Your task to perform on an android device: Go to wifi settings Image 0: 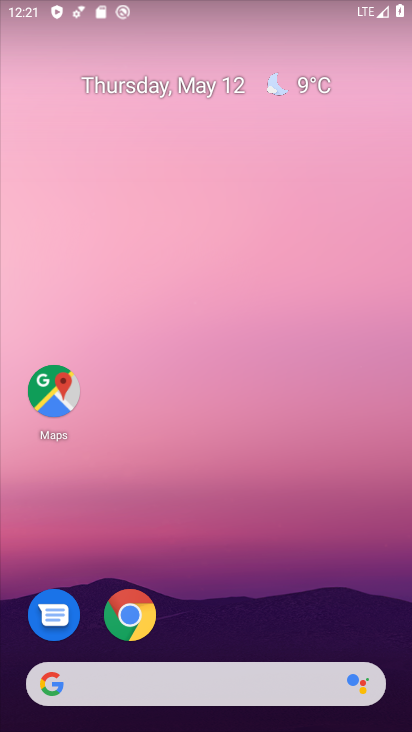
Step 0: drag from (257, 593) to (234, 74)
Your task to perform on an android device: Go to wifi settings Image 1: 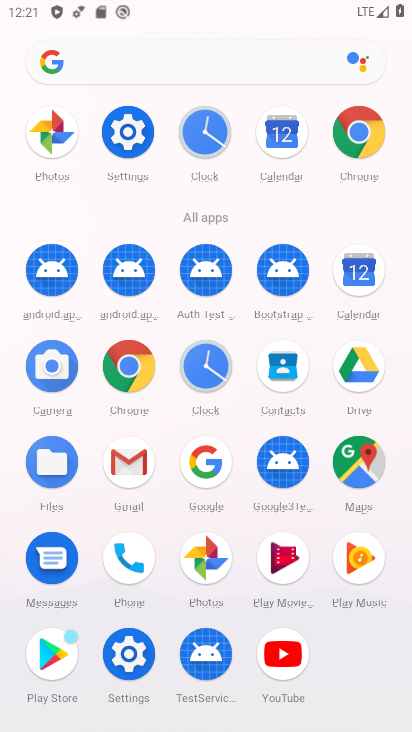
Step 1: click (127, 128)
Your task to perform on an android device: Go to wifi settings Image 2: 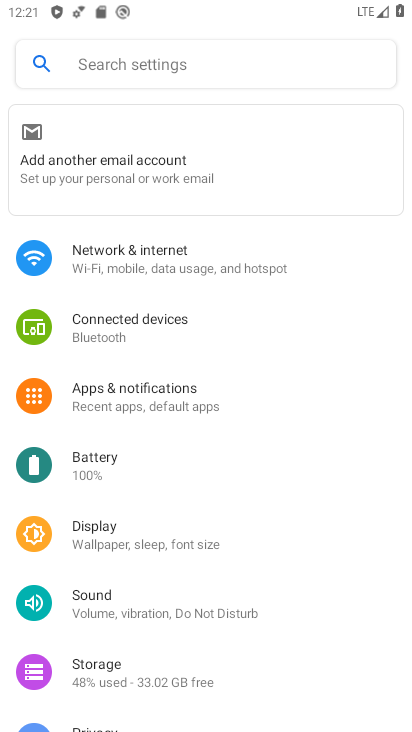
Step 2: click (130, 268)
Your task to perform on an android device: Go to wifi settings Image 3: 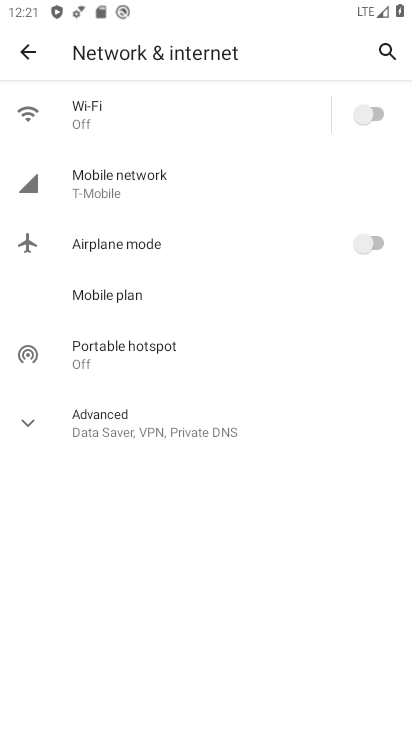
Step 3: click (94, 115)
Your task to perform on an android device: Go to wifi settings Image 4: 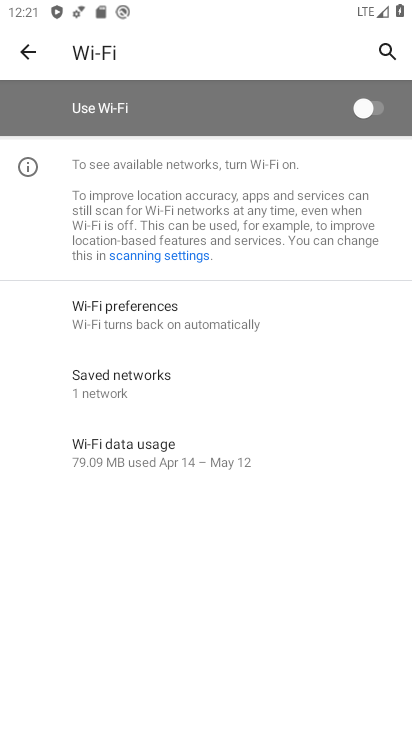
Step 4: task complete